Your task to perform on an android device: toggle javascript in the chrome app Image 0: 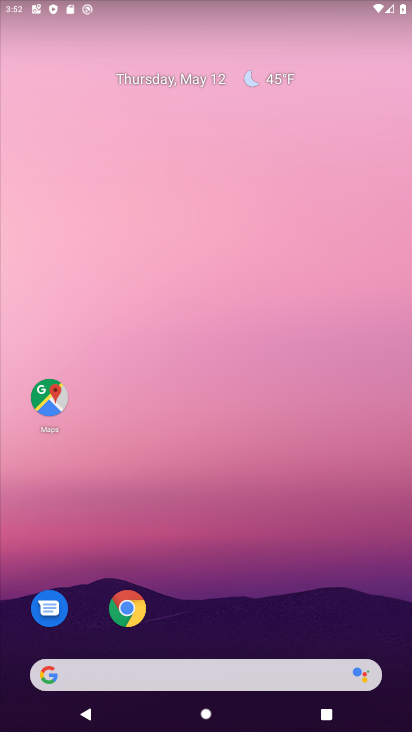
Step 0: task complete